Your task to perform on an android device: Go to Yahoo.com Image 0: 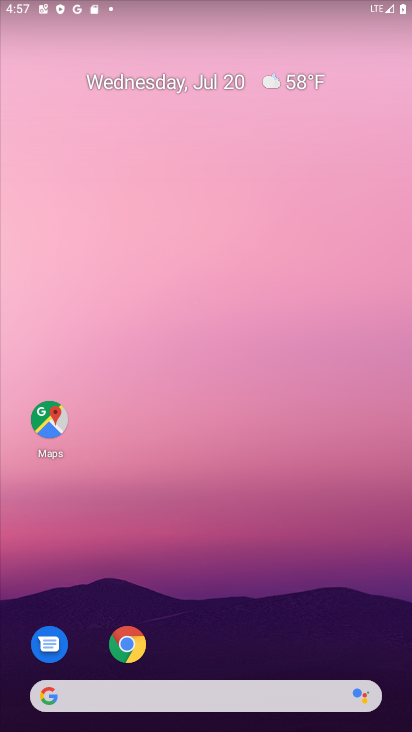
Step 0: press home button
Your task to perform on an android device: Go to Yahoo.com Image 1: 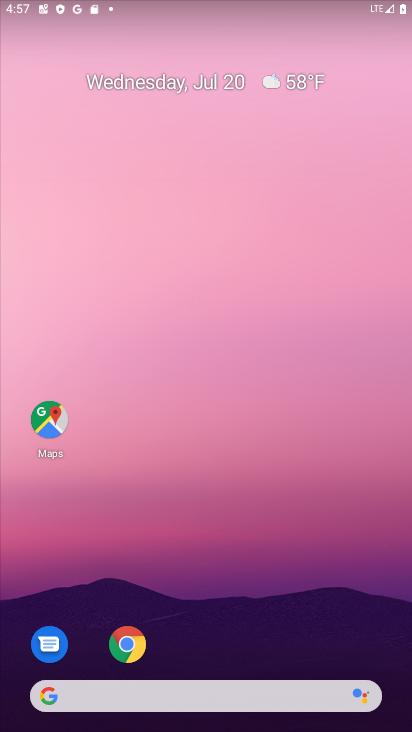
Step 1: click (48, 699)
Your task to perform on an android device: Go to Yahoo.com Image 2: 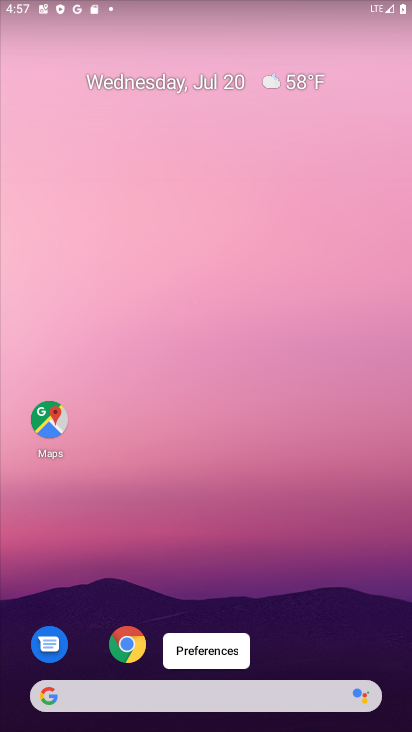
Step 2: click (48, 699)
Your task to perform on an android device: Go to Yahoo.com Image 3: 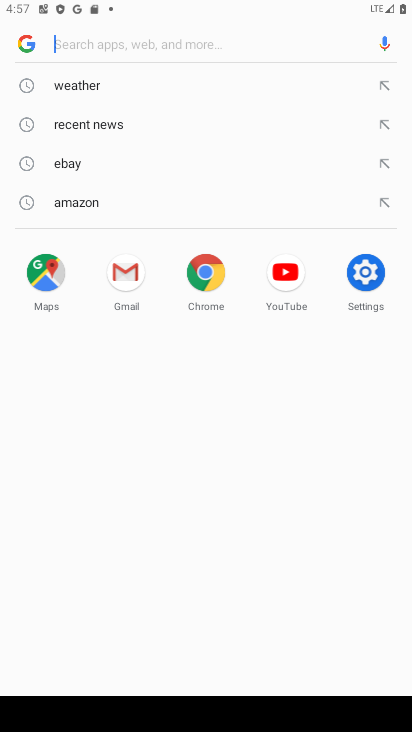
Step 3: type "Yahoo.com"
Your task to perform on an android device: Go to Yahoo.com Image 4: 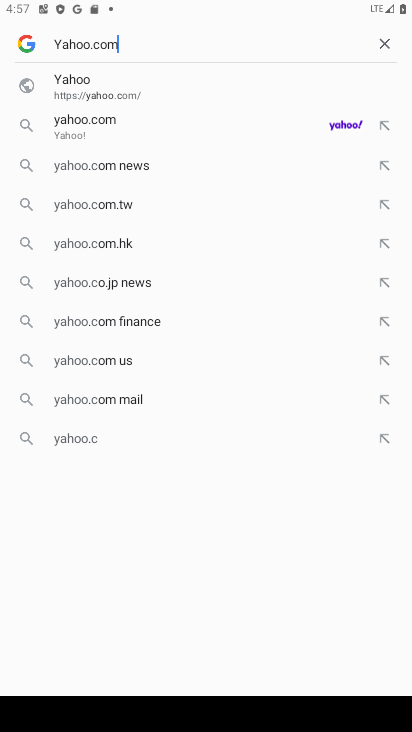
Step 4: press enter
Your task to perform on an android device: Go to Yahoo.com Image 5: 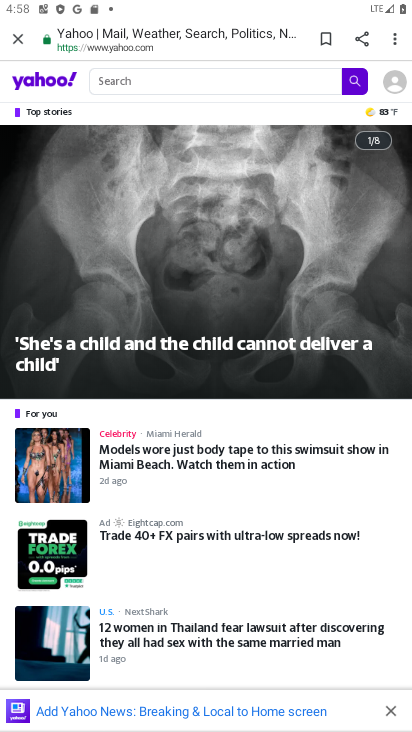
Step 5: task complete